Your task to perform on an android device: Show me popular videos on Youtube Image 0: 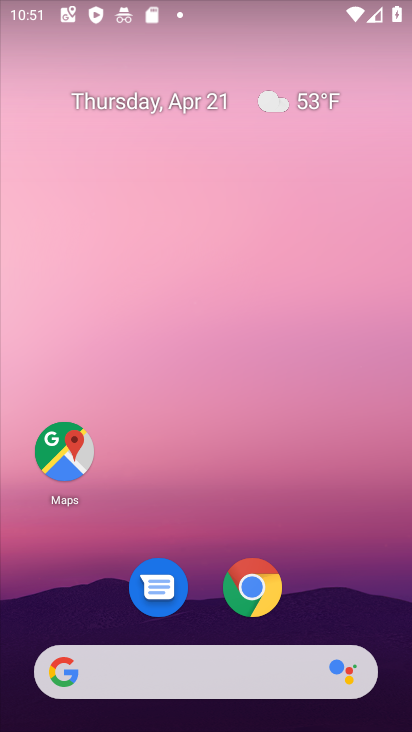
Step 0: drag from (159, 668) to (150, 115)
Your task to perform on an android device: Show me popular videos on Youtube Image 1: 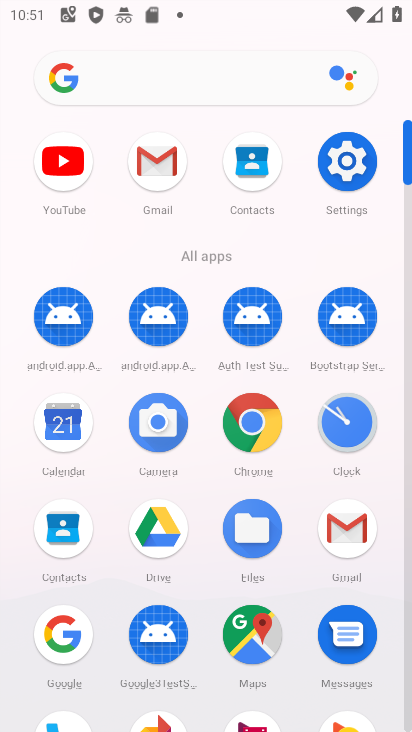
Step 1: drag from (162, 658) to (118, 220)
Your task to perform on an android device: Show me popular videos on Youtube Image 2: 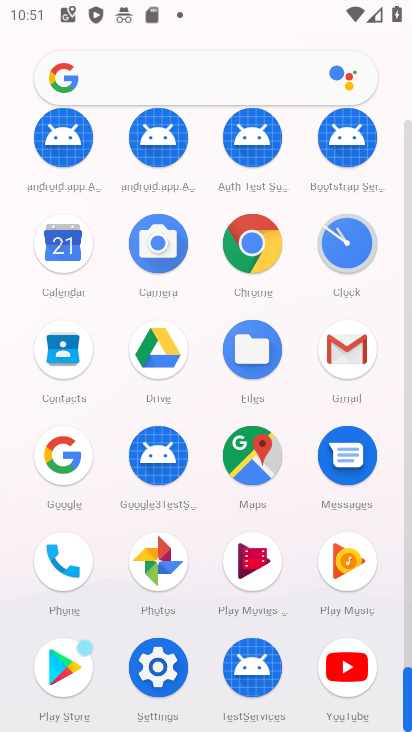
Step 2: click (317, 681)
Your task to perform on an android device: Show me popular videos on Youtube Image 3: 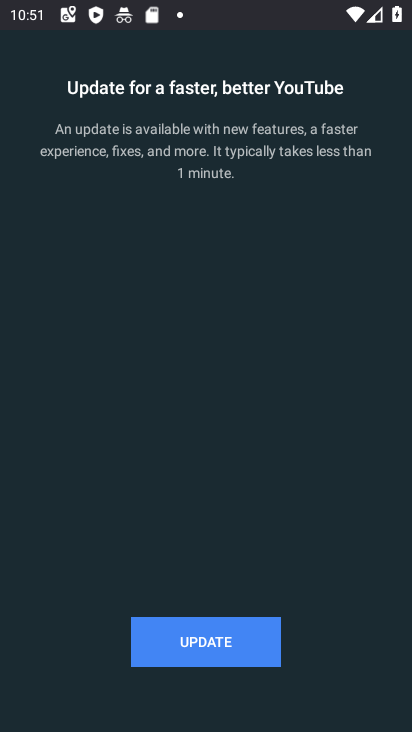
Step 3: click (246, 643)
Your task to perform on an android device: Show me popular videos on Youtube Image 4: 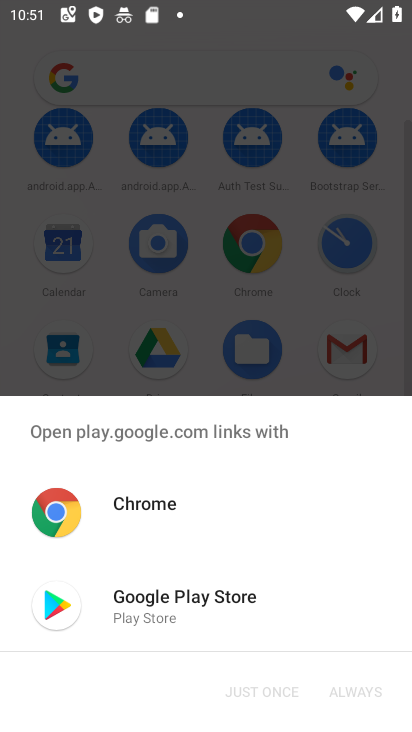
Step 4: click (199, 611)
Your task to perform on an android device: Show me popular videos on Youtube Image 5: 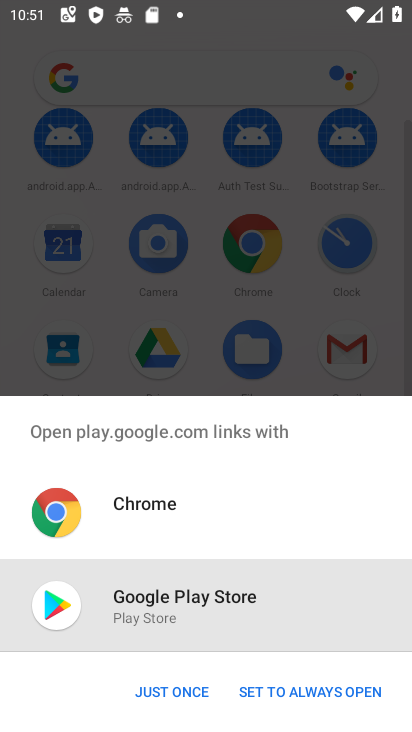
Step 5: click (176, 695)
Your task to perform on an android device: Show me popular videos on Youtube Image 6: 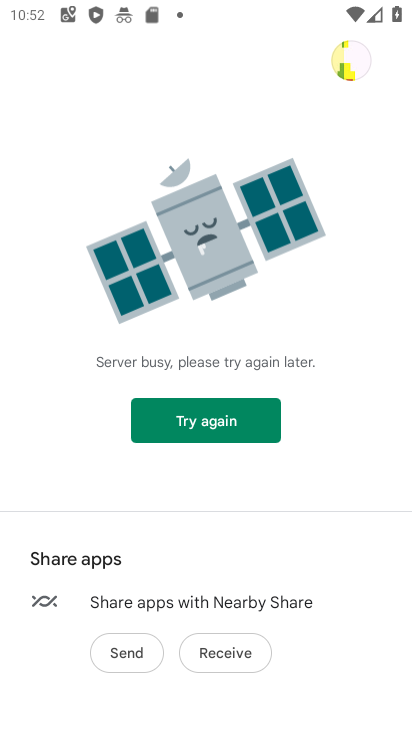
Step 6: task complete